Your task to perform on an android device: delete the emails in spam in the gmail app Image 0: 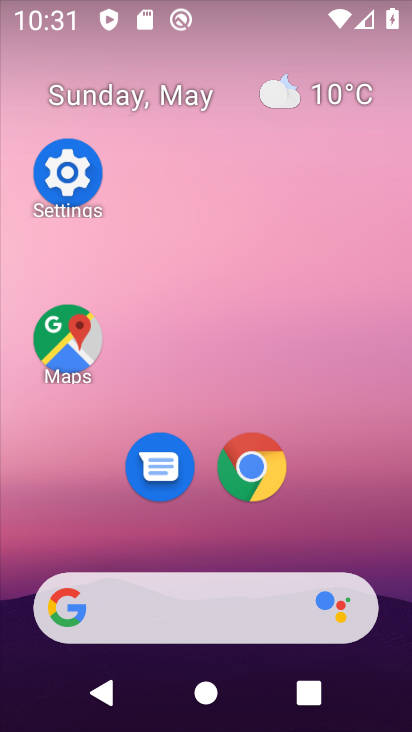
Step 0: drag from (216, 551) to (208, 98)
Your task to perform on an android device: delete the emails in spam in the gmail app Image 1: 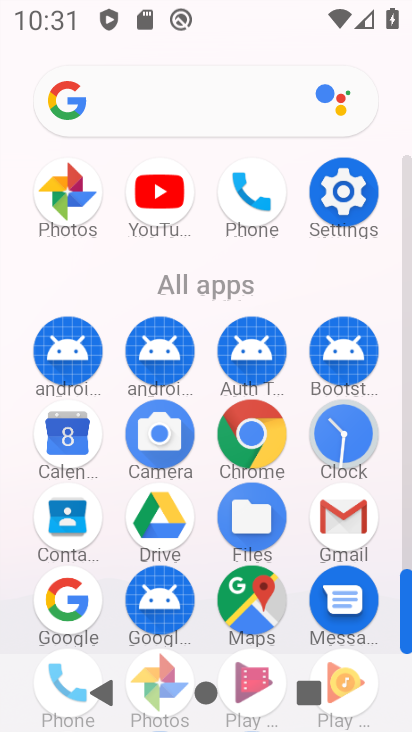
Step 1: drag from (331, 513) to (95, 251)
Your task to perform on an android device: delete the emails in spam in the gmail app Image 2: 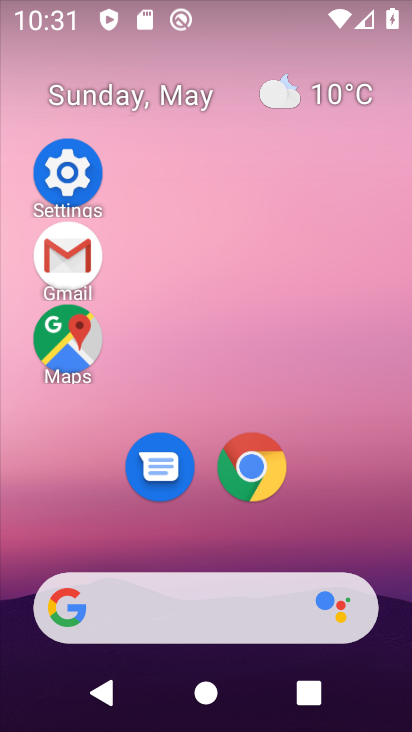
Step 2: click (44, 242)
Your task to perform on an android device: delete the emails in spam in the gmail app Image 3: 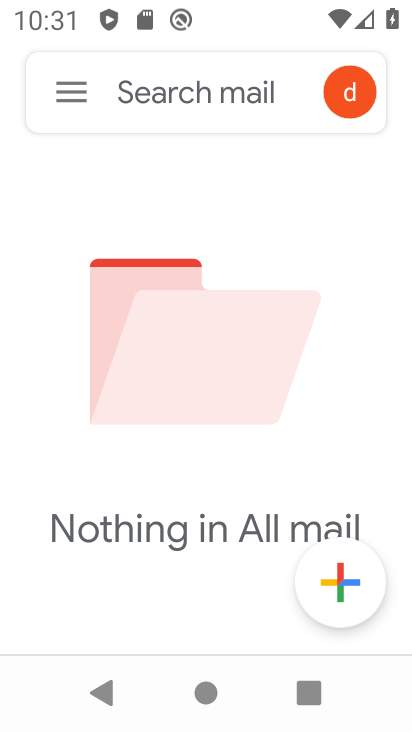
Step 3: click (51, 98)
Your task to perform on an android device: delete the emails in spam in the gmail app Image 4: 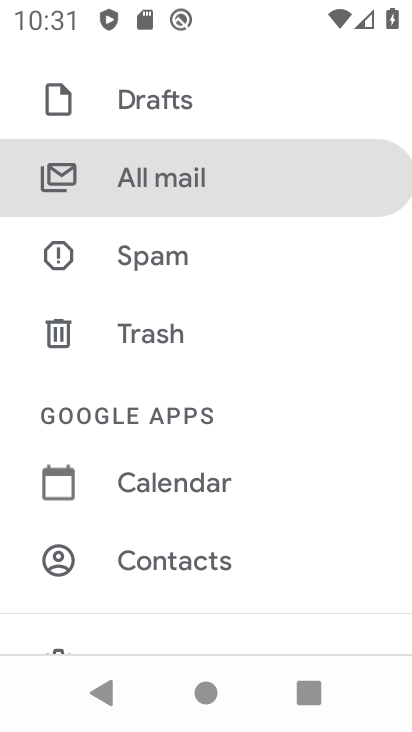
Step 4: click (128, 268)
Your task to perform on an android device: delete the emails in spam in the gmail app Image 5: 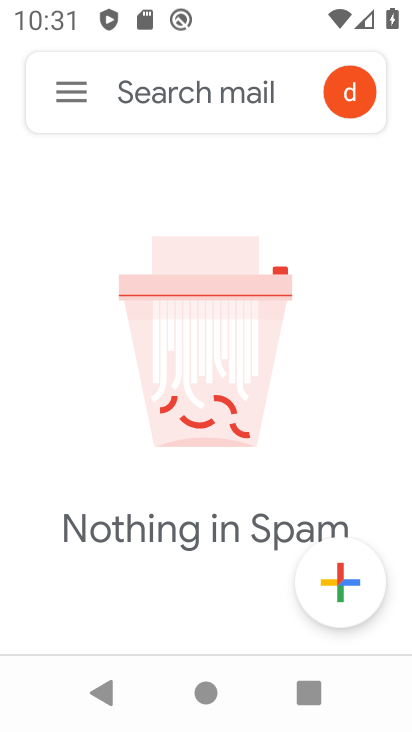
Step 5: task complete